Your task to perform on an android device: delete a single message in the gmail app Image 0: 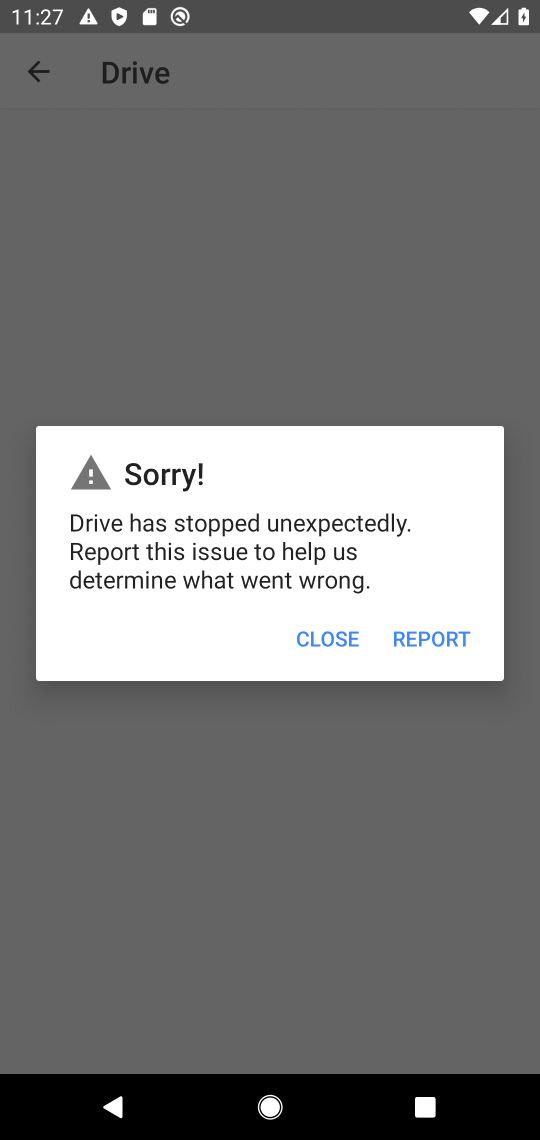
Step 0: press home button
Your task to perform on an android device: delete a single message in the gmail app Image 1: 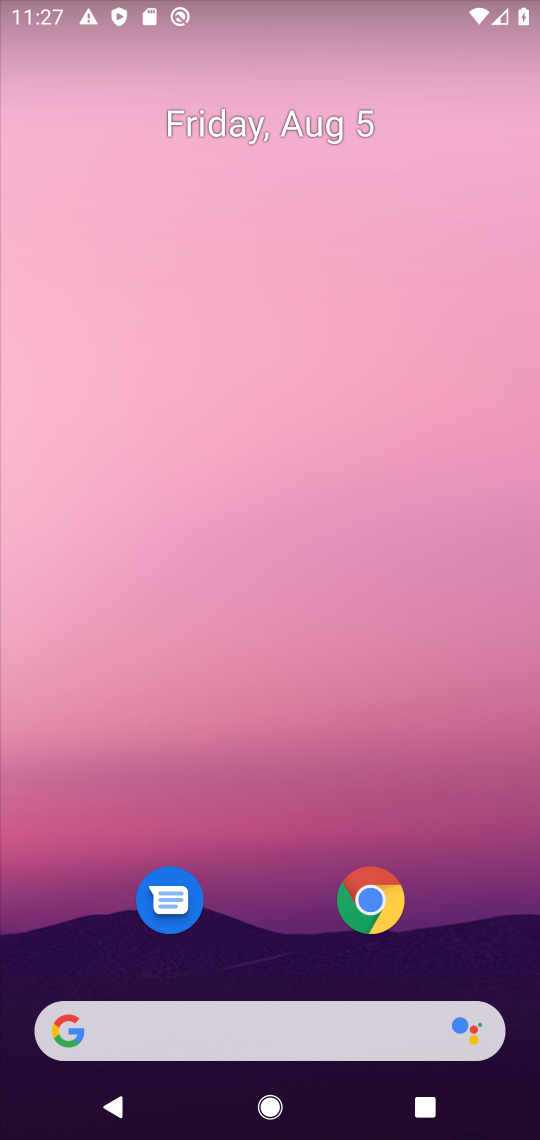
Step 1: drag from (257, 776) to (255, 77)
Your task to perform on an android device: delete a single message in the gmail app Image 2: 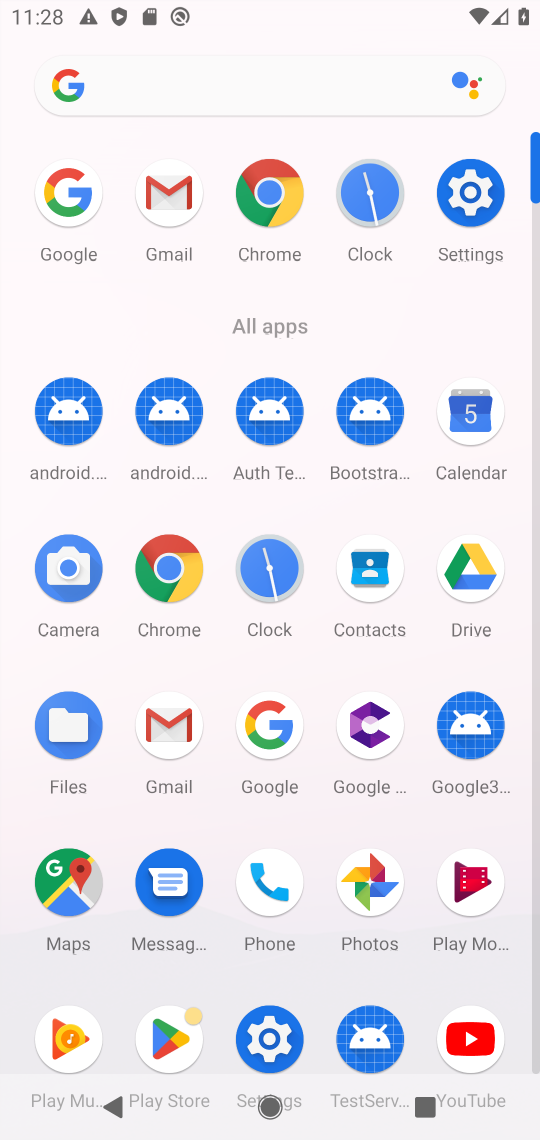
Step 2: click (163, 722)
Your task to perform on an android device: delete a single message in the gmail app Image 3: 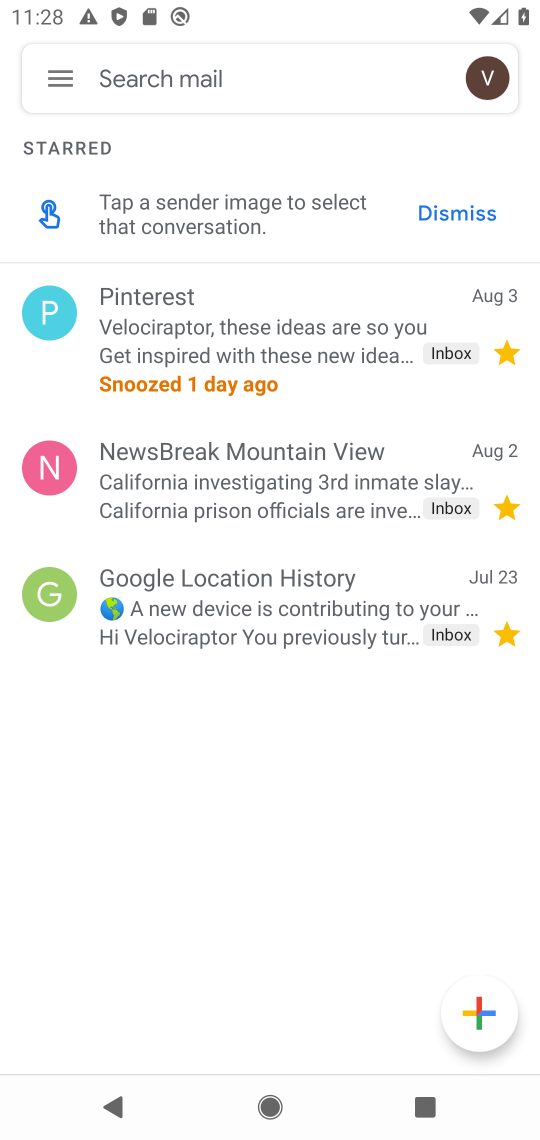
Step 3: click (214, 332)
Your task to perform on an android device: delete a single message in the gmail app Image 4: 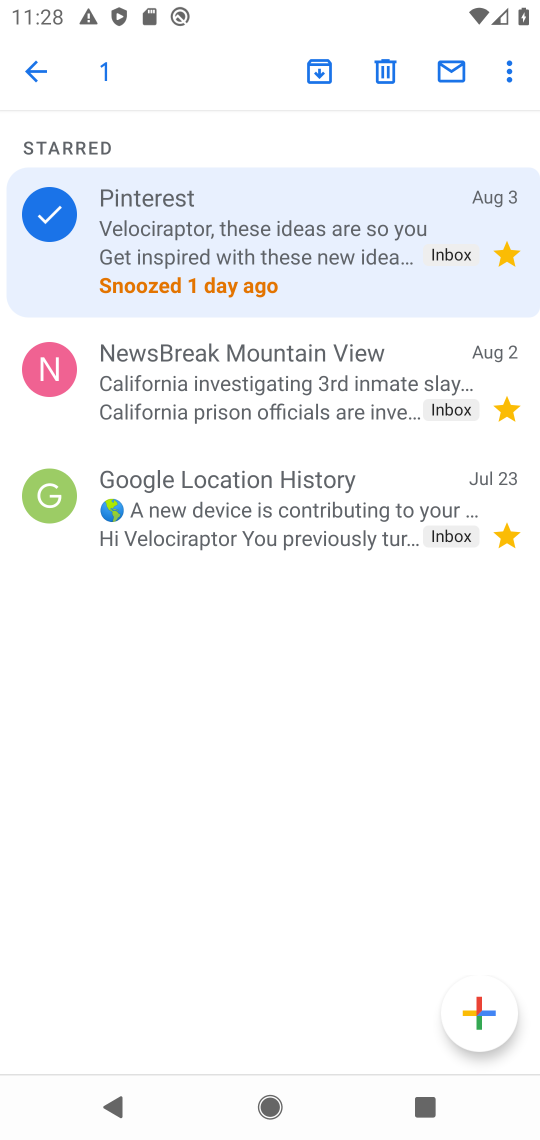
Step 4: click (379, 58)
Your task to perform on an android device: delete a single message in the gmail app Image 5: 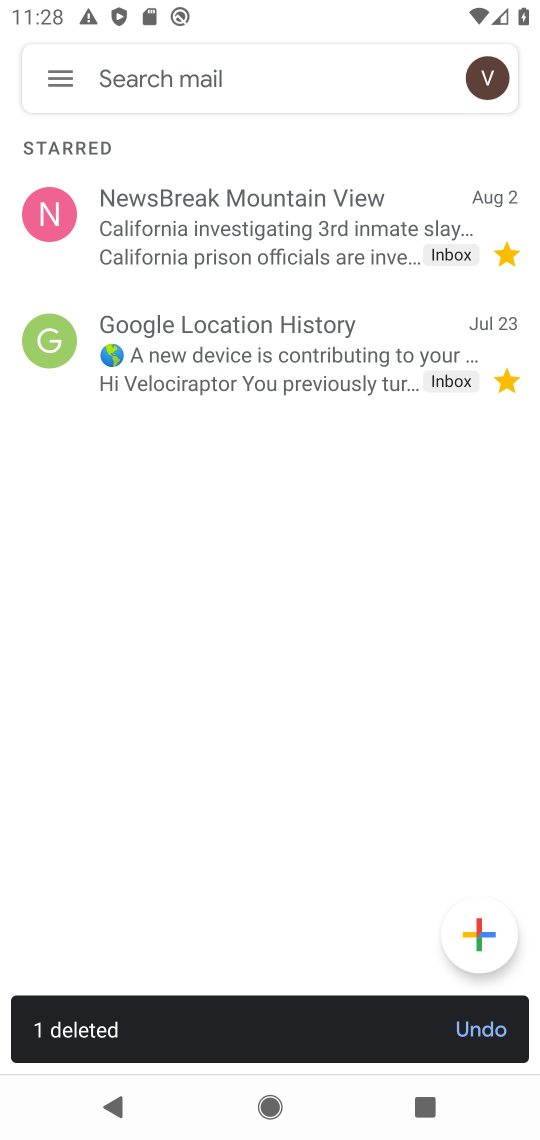
Step 5: task complete